Your task to perform on an android device: turn on airplane mode Image 0: 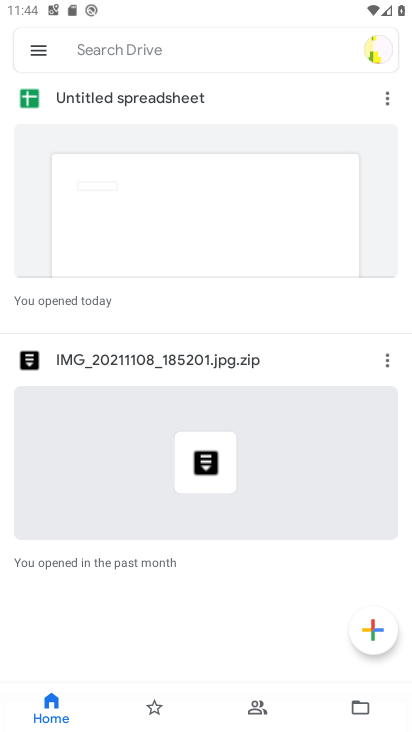
Step 0: press home button
Your task to perform on an android device: turn on airplane mode Image 1: 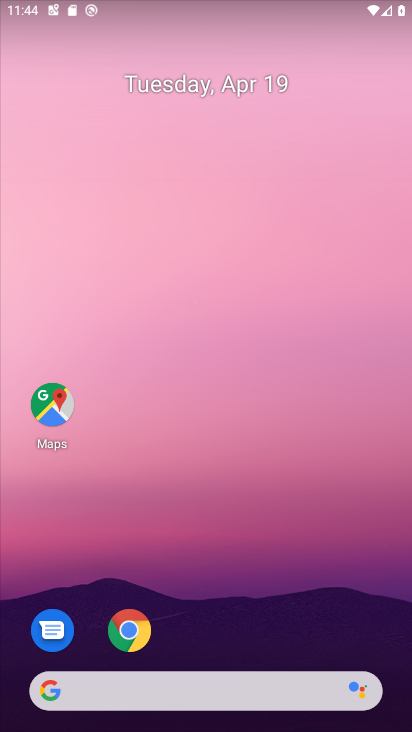
Step 1: drag from (246, 4) to (184, 471)
Your task to perform on an android device: turn on airplane mode Image 2: 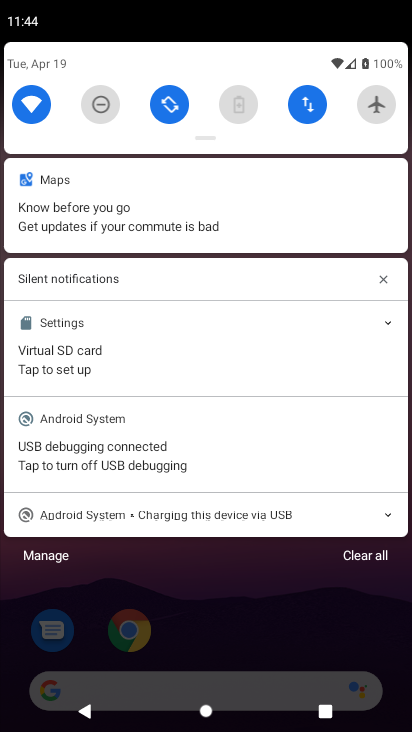
Step 2: drag from (283, 126) to (215, 515)
Your task to perform on an android device: turn on airplane mode Image 3: 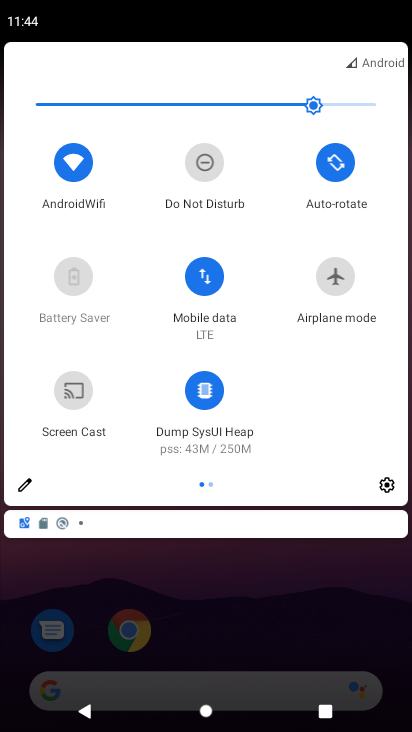
Step 3: click (326, 275)
Your task to perform on an android device: turn on airplane mode Image 4: 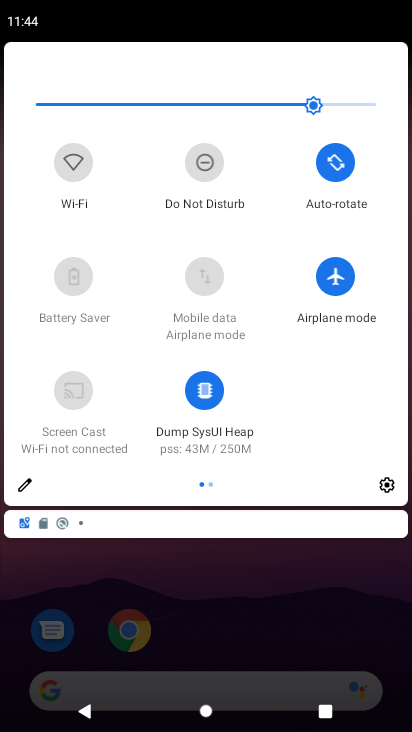
Step 4: task complete